Your task to perform on an android device: Go to location settings Image 0: 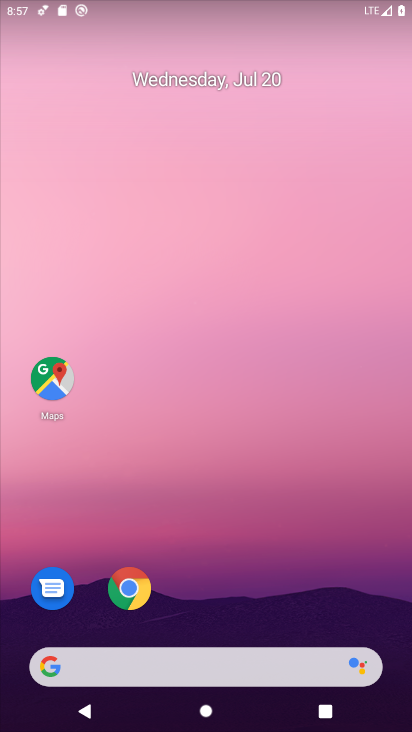
Step 0: press home button
Your task to perform on an android device: Go to location settings Image 1: 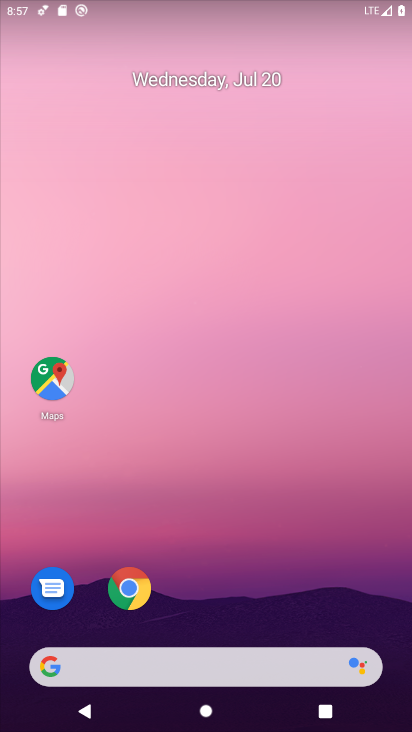
Step 1: drag from (217, 628) to (224, 0)
Your task to perform on an android device: Go to location settings Image 2: 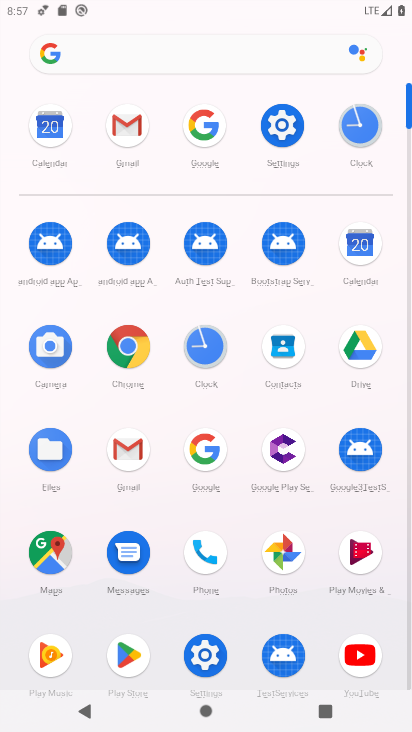
Step 2: click (203, 646)
Your task to perform on an android device: Go to location settings Image 3: 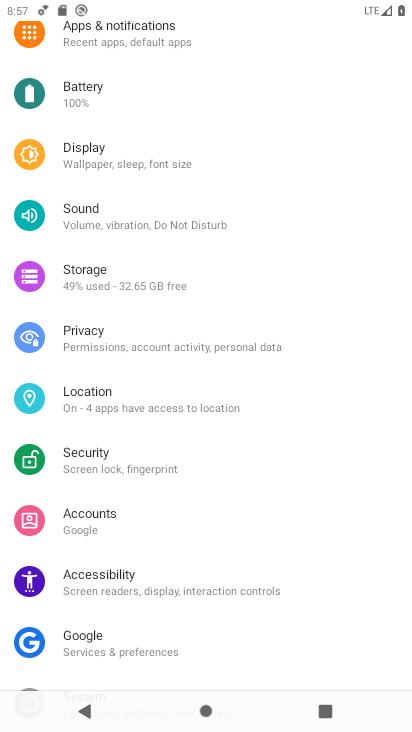
Step 3: click (122, 391)
Your task to perform on an android device: Go to location settings Image 4: 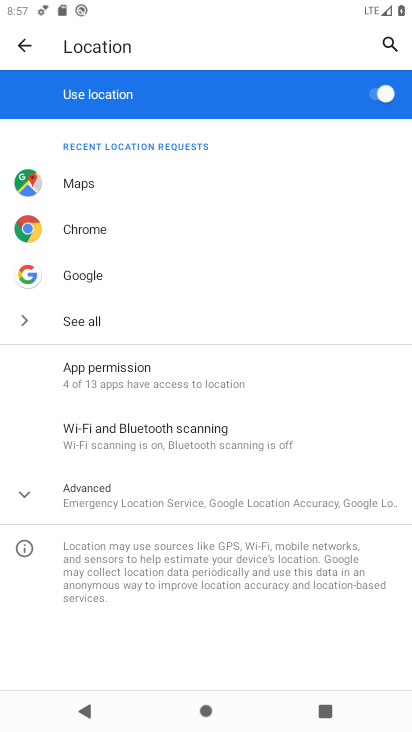
Step 4: click (21, 489)
Your task to perform on an android device: Go to location settings Image 5: 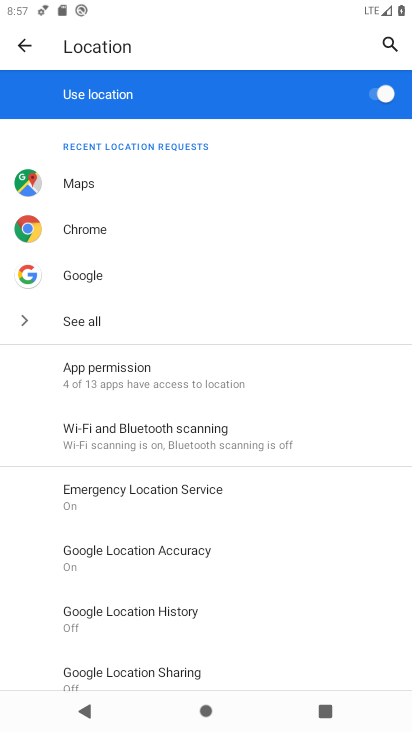
Step 5: task complete